Your task to perform on an android device: Open notification settings Image 0: 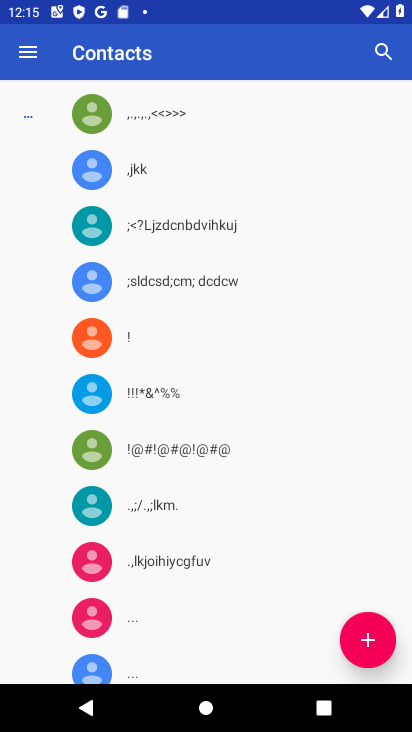
Step 0: press home button
Your task to perform on an android device: Open notification settings Image 1: 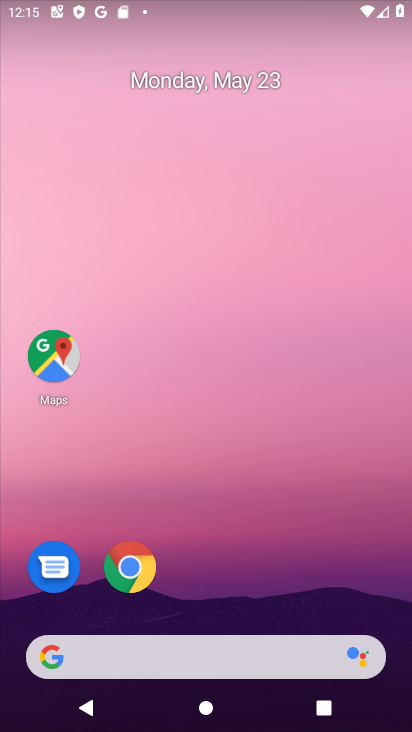
Step 1: drag from (233, 603) to (206, 114)
Your task to perform on an android device: Open notification settings Image 2: 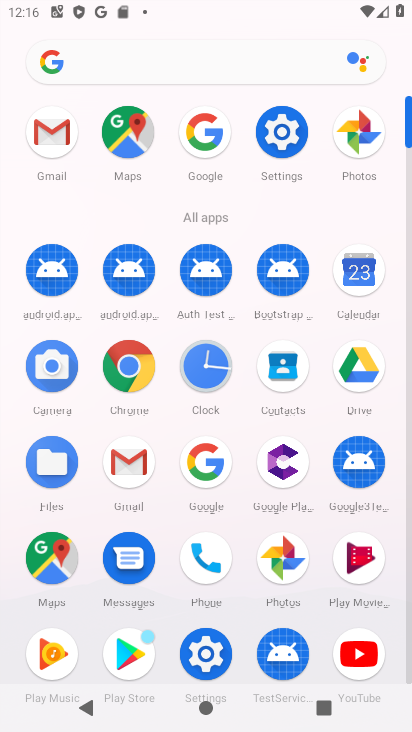
Step 2: click (281, 148)
Your task to perform on an android device: Open notification settings Image 3: 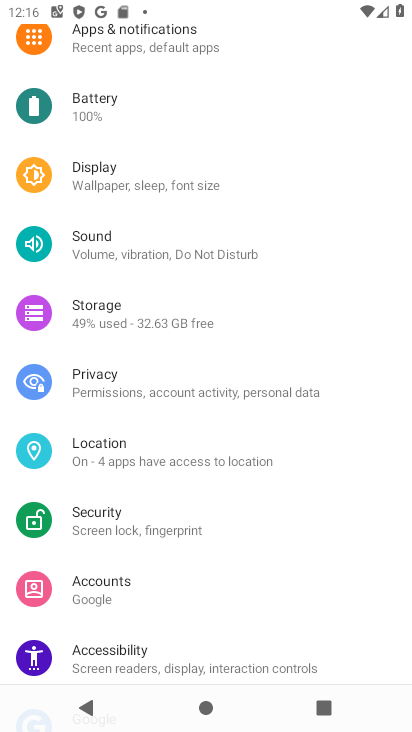
Step 3: click (190, 31)
Your task to perform on an android device: Open notification settings Image 4: 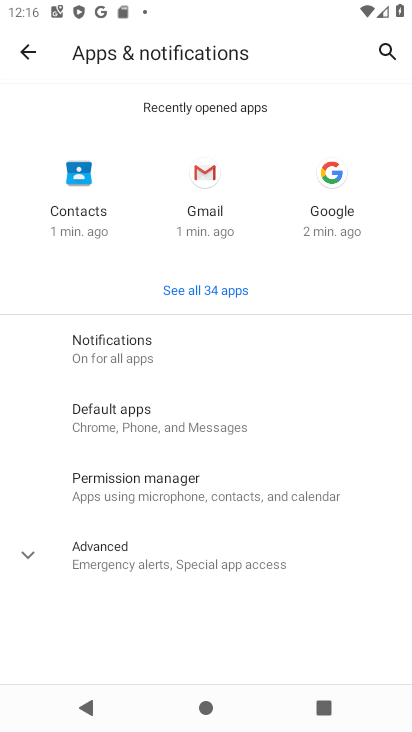
Step 4: click (186, 362)
Your task to perform on an android device: Open notification settings Image 5: 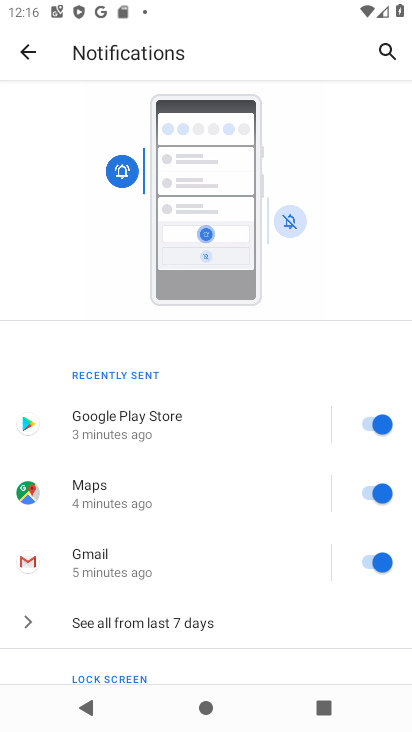
Step 5: task complete